Your task to perform on an android device: open app "Microsoft Authenticator" (install if not already installed), go to login, and select forgot password Image 0: 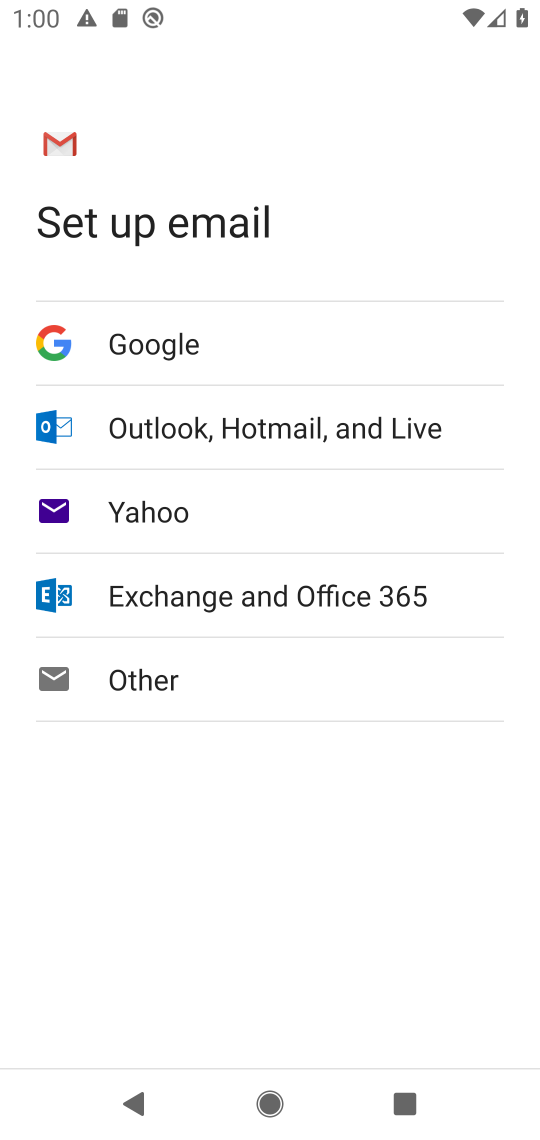
Step 0: press back button
Your task to perform on an android device: open app "Microsoft Authenticator" (install if not already installed), go to login, and select forgot password Image 1: 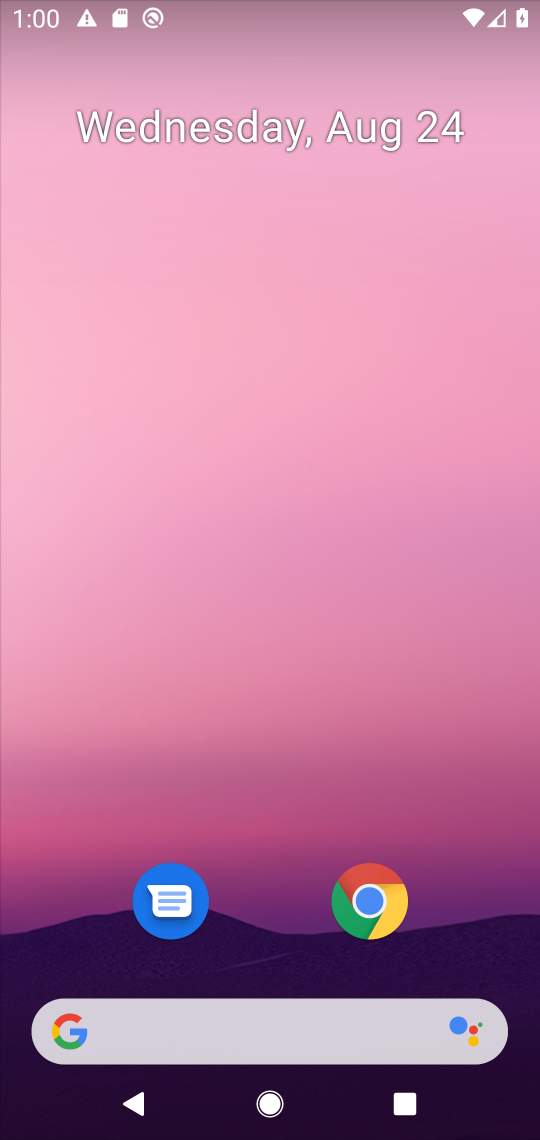
Step 1: drag from (244, 845) to (349, 27)
Your task to perform on an android device: open app "Microsoft Authenticator" (install if not already installed), go to login, and select forgot password Image 2: 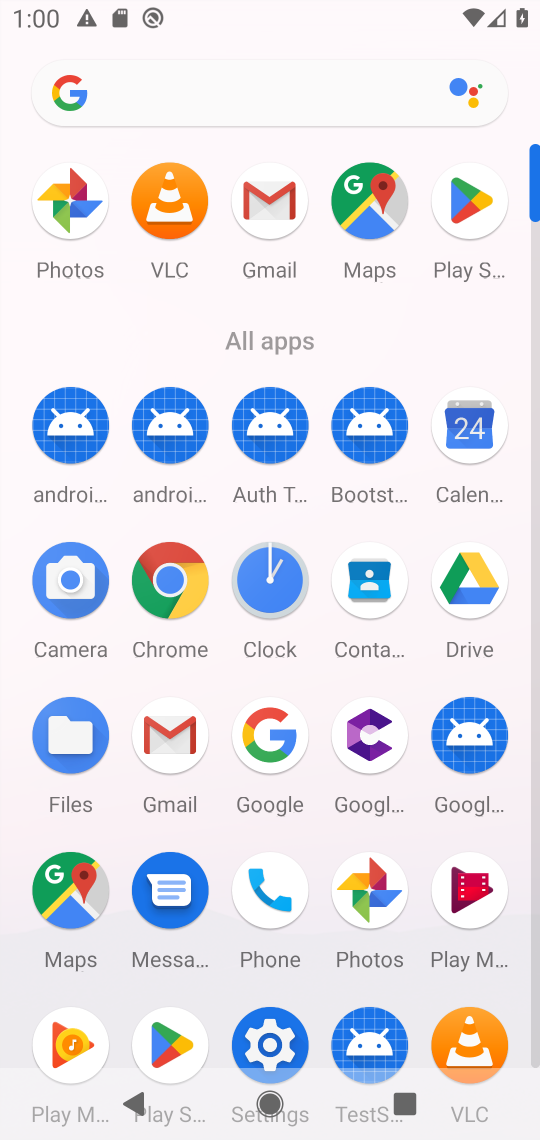
Step 2: click (471, 201)
Your task to perform on an android device: open app "Microsoft Authenticator" (install if not already installed), go to login, and select forgot password Image 3: 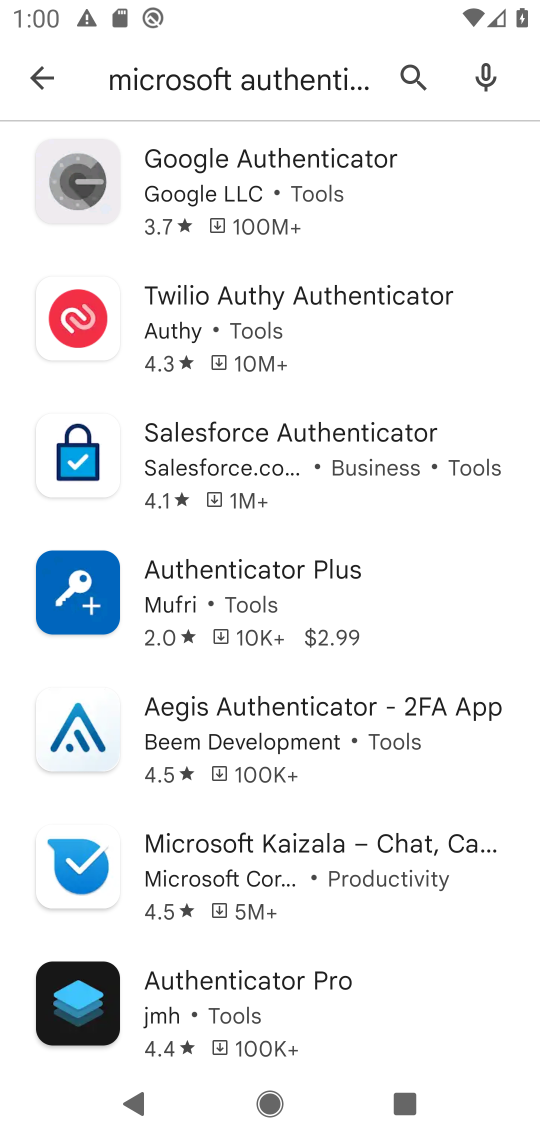
Step 3: task complete